Your task to perform on an android device: View the shopping cart on walmart. Add "macbook" to the cart on walmart, then select checkout. Image 0: 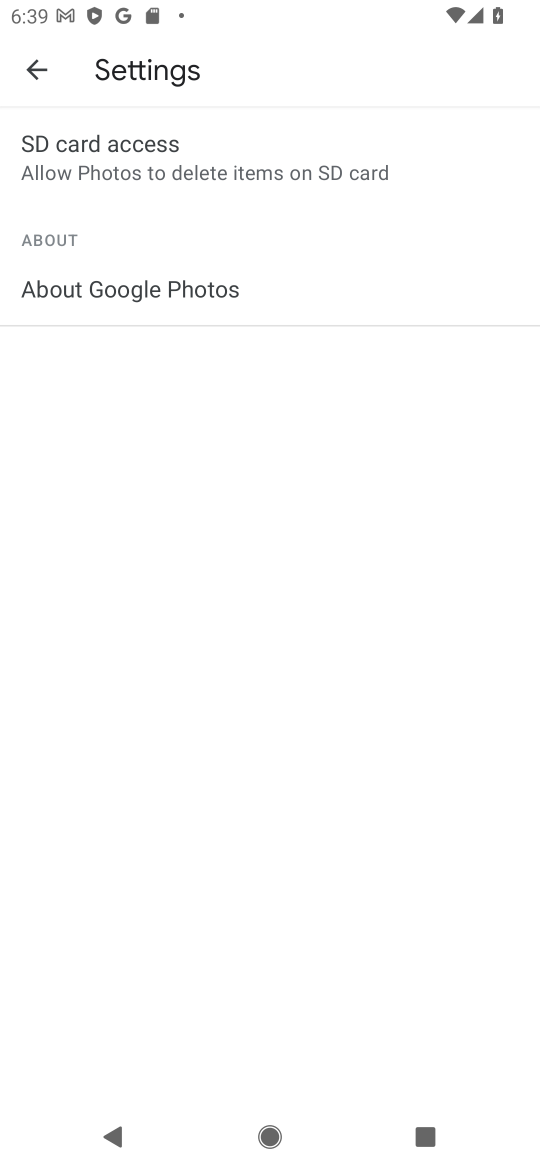
Step 0: press home button
Your task to perform on an android device: View the shopping cart on walmart. Add "macbook" to the cart on walmart, then select checkout. Image 1: 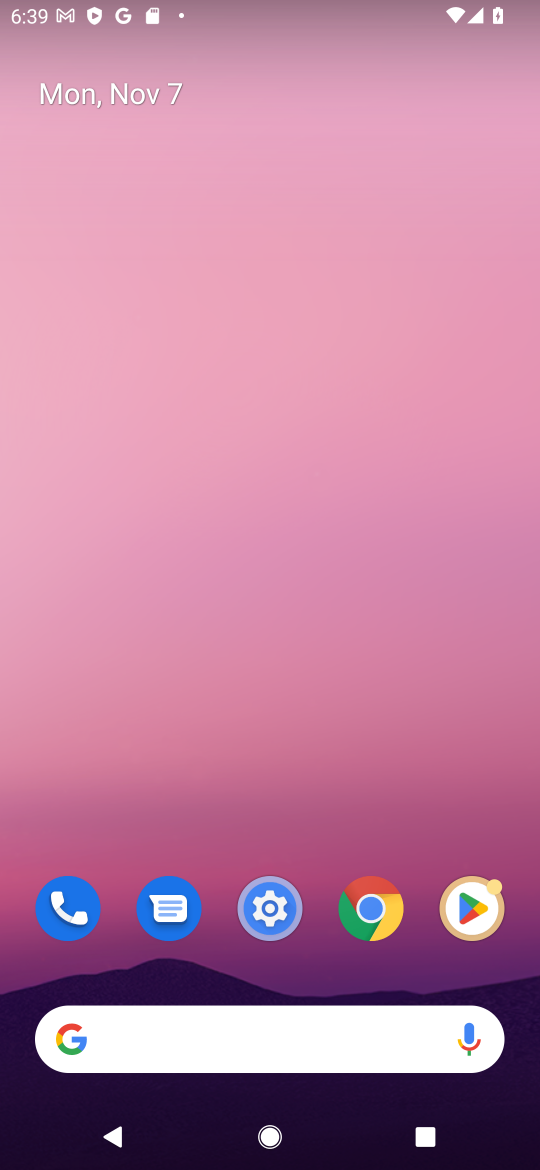
Step 1: click (167, 1024)
Your task to perform on an android device: View the shopping cart on walmart. Add "macbook" to the cart on walmart, then select checkout. Image 2: 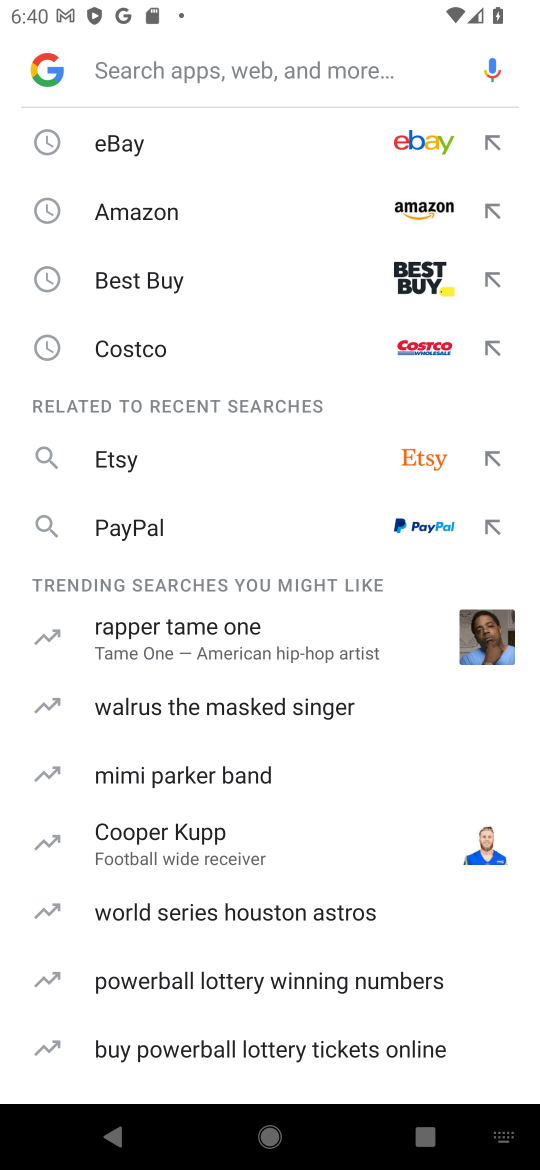
Step 2: task complete